Your task to perform on an android device: Go to ESPN.com Image 0: 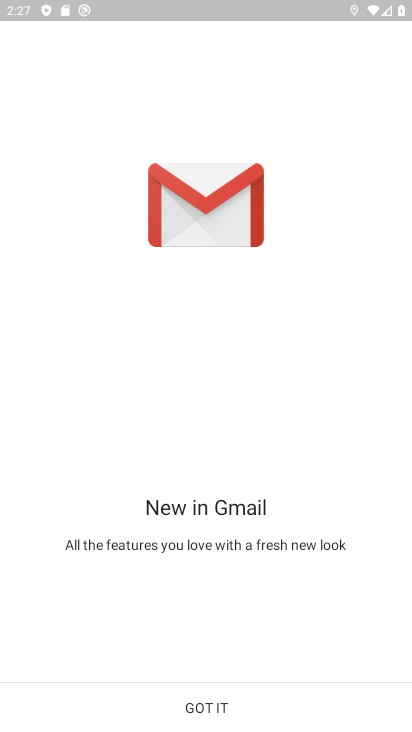
Step 0: press back button
Your task to perform on an android device: Go to ESPN.com Image 1: 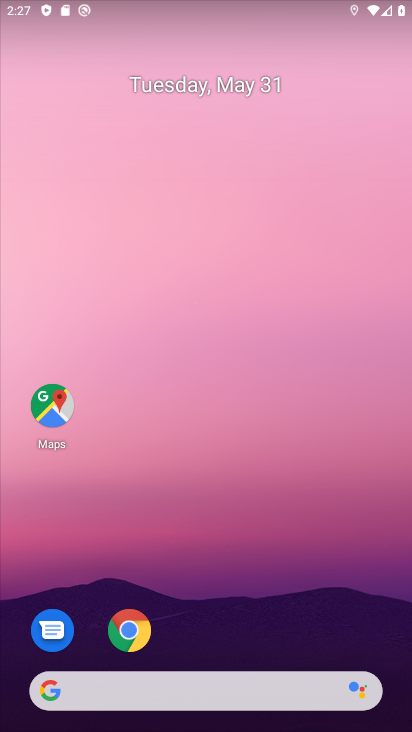
Step 1: click (120, 629)
Your task to perform on an android device: Go to ESPN.com Image 2: 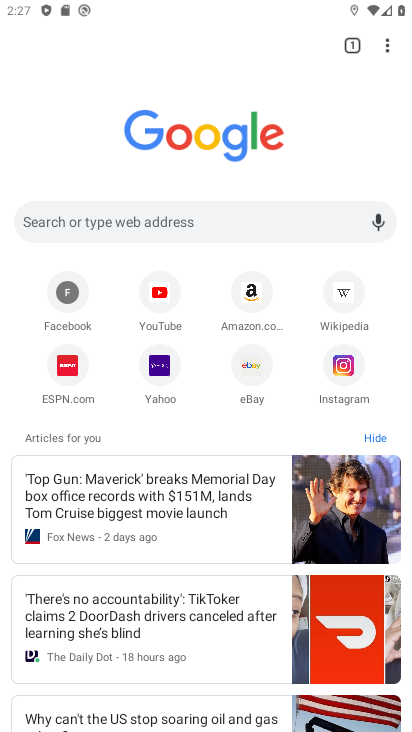
Step 2: click (61, 364)
Your task to perform on an android device: Go to ESPN.com Image 3: 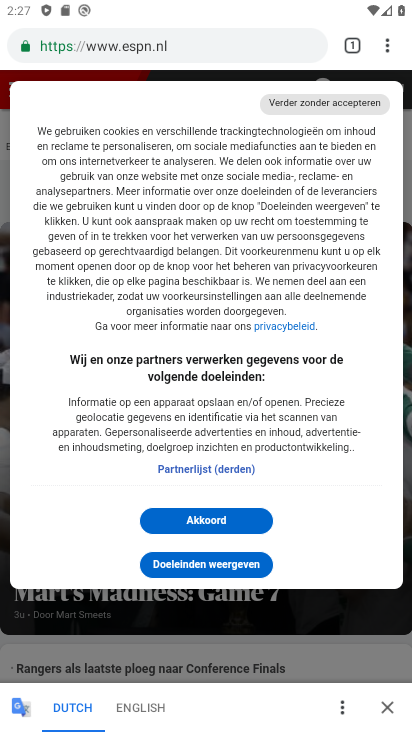
Step 3: task complete